Your task to perform on an android device: open app "Facebook Lite" (install if not already installed), go to login, and select forgot password Image 0: 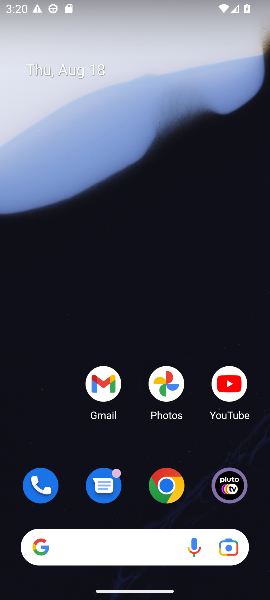
Step 0: drag from (38, 415) to (122, 52)
Your task to perform on an android device: open app "Facebook Lite" (install if not already installed), go to login, and select forgot password Image 1: 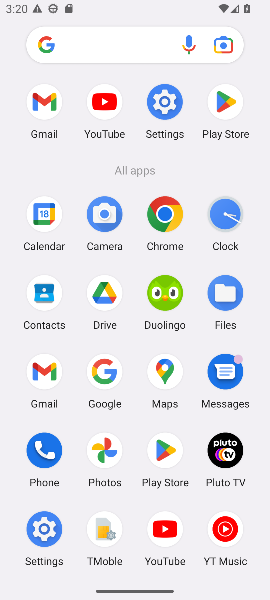
Step 1: click (157, 454)
Your task to perform on an android device: open app "Facebook Lite" (install if not already installed), go to login, and select forgot password Image 2: 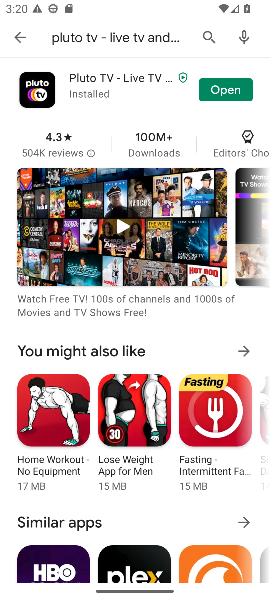
Step 2: click (203, 36)
Your task to perform on an android device: open app "Facebook Lite" (install if not already installed), go to login, and select forgot password Image 3: 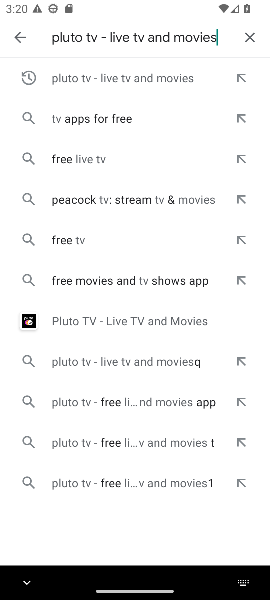
Step 3: click (247, 38)
Your task to perform on an android device: open app "Facebook Lite" (install if not already installed), go to login, and select forgot password Image 4: 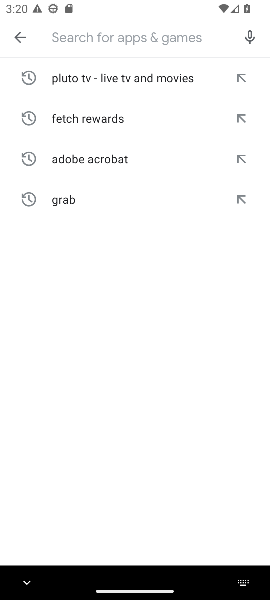
Step 4: click (117, 40)
Your task to perform on an android device: open app "Facebook Lite" (install if not already installed), go to login, and select forgot password Image 5: 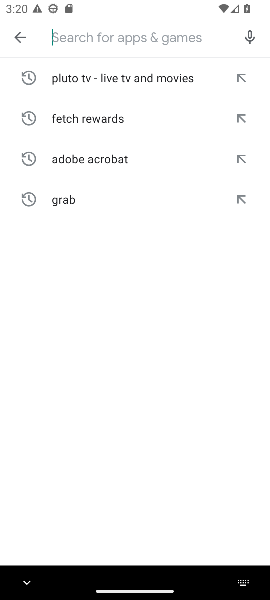
Step 5: type "Facebook Lite"
Your task to perform on an android device: open app "Facebook Lite" (install if not already installed), go to login, and select forgot password Image 6: 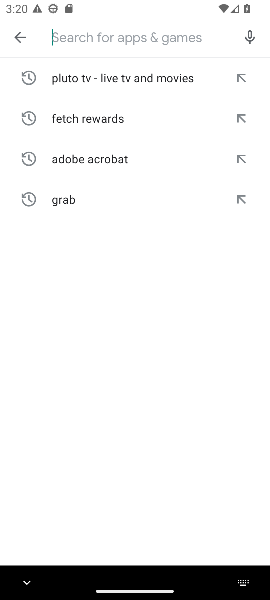
Step 6: click (143, 364)
Your task to perform on an android device: open app "Facebook Lite" (install if not already installed), go to login, and select forgot password Image 7: 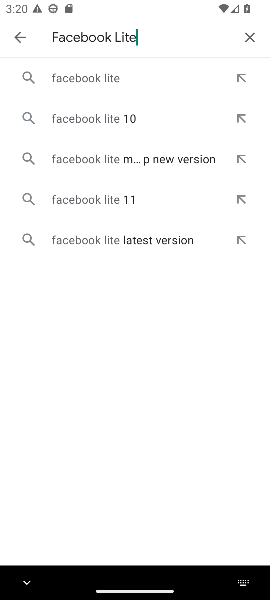
Step 7: click (91, 74)
Your task to perform on an android device: open app "Facebook Lite" (install if not already installed), go to login, and select forgot password Image 8: 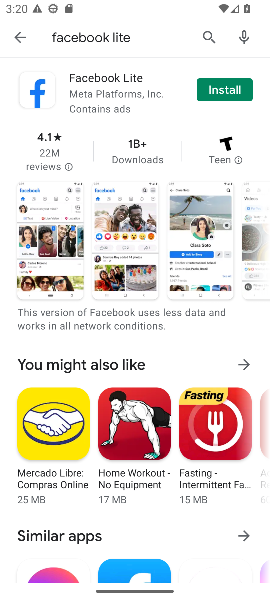
Step 8: click (210, 90)
Your task to perform on an android device: open app "Facebook Lite" (install if not already installed), go to login, and select forgot password Image 9: 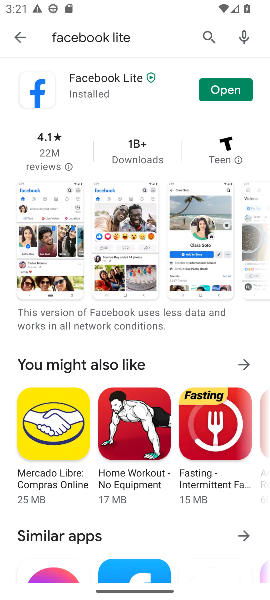
Step 9: click (223, 87)
Your task to perform on an android device: open app "Facebook Lite" (install if not already installed), go to login, and select forgot password Image 10: 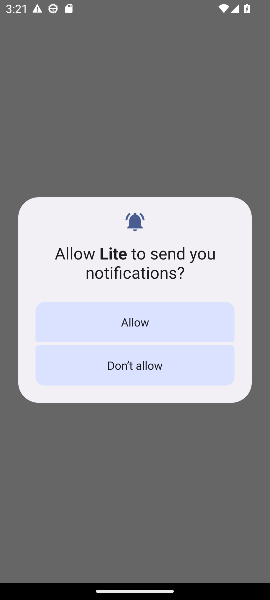
Step 10: task complete